Your task to perform on an android device: open app "Google Pay: Save, Pay, Manage" (install if not already installed) Image 0: 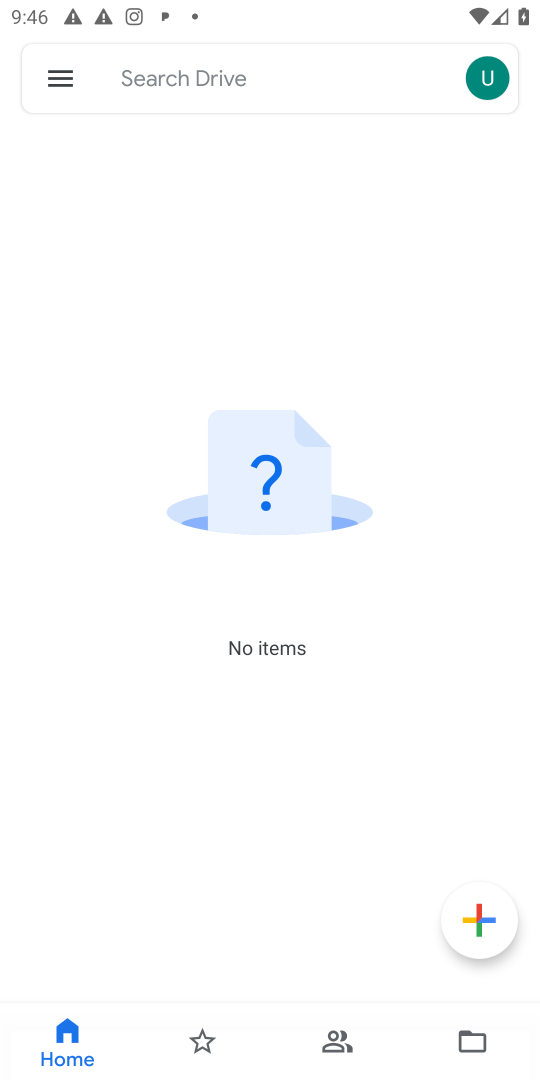
Step 0: press home button
Your task to perform on an android device: open app "Google Pay: Save, Pay, Manage" (install if not already installed) Image 1: 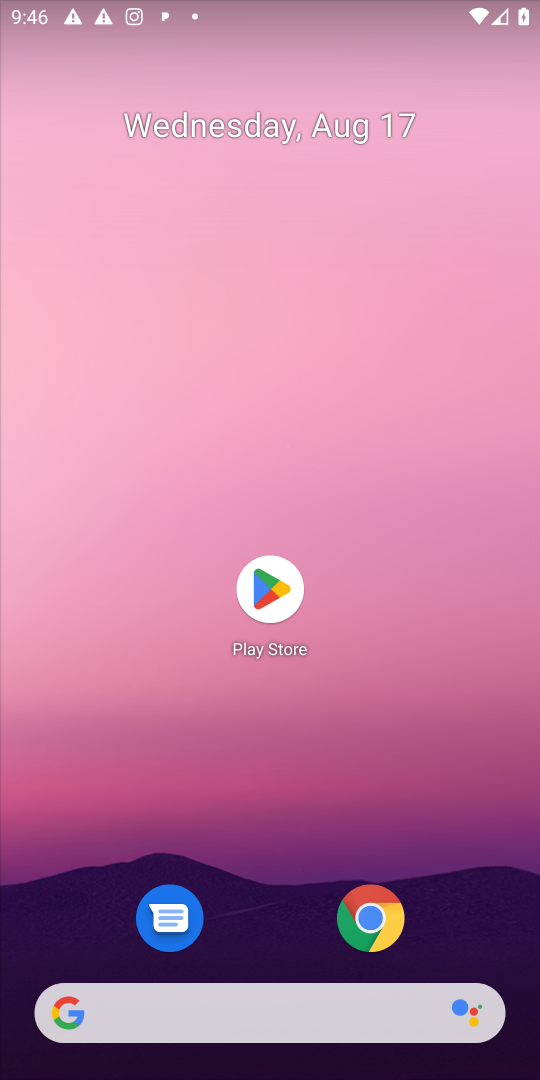
Step 1: click (267, 582)
Your task to perform on an android device: open app "Google Pay: Save, Pay, Manage" (install if not already installed) Image 2: 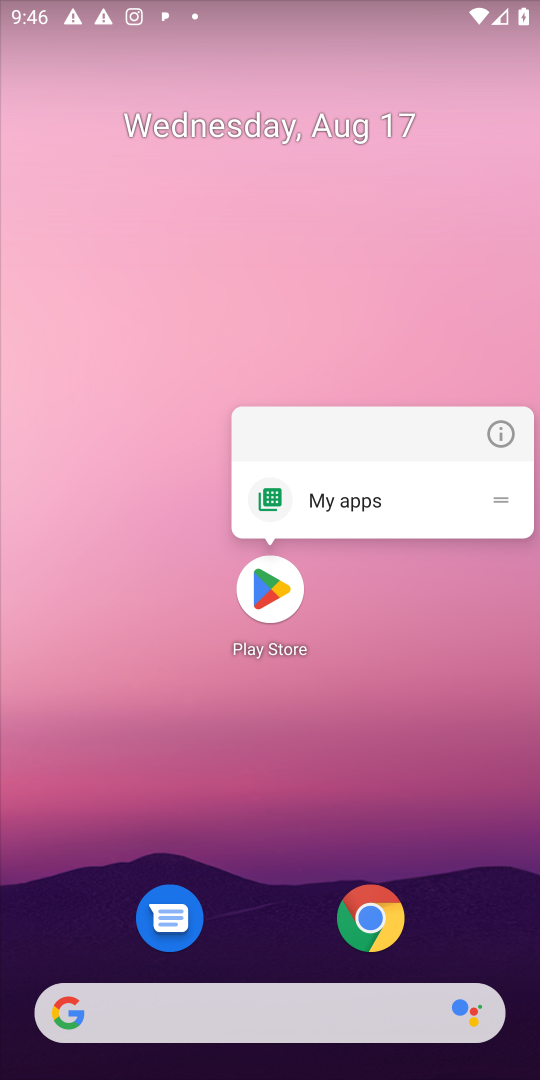
Step 2: click (265, 592)
Your task to perform on an android device: open app "Google Pay: Save, Pay, Manage" (install if not already installed) Image 3: 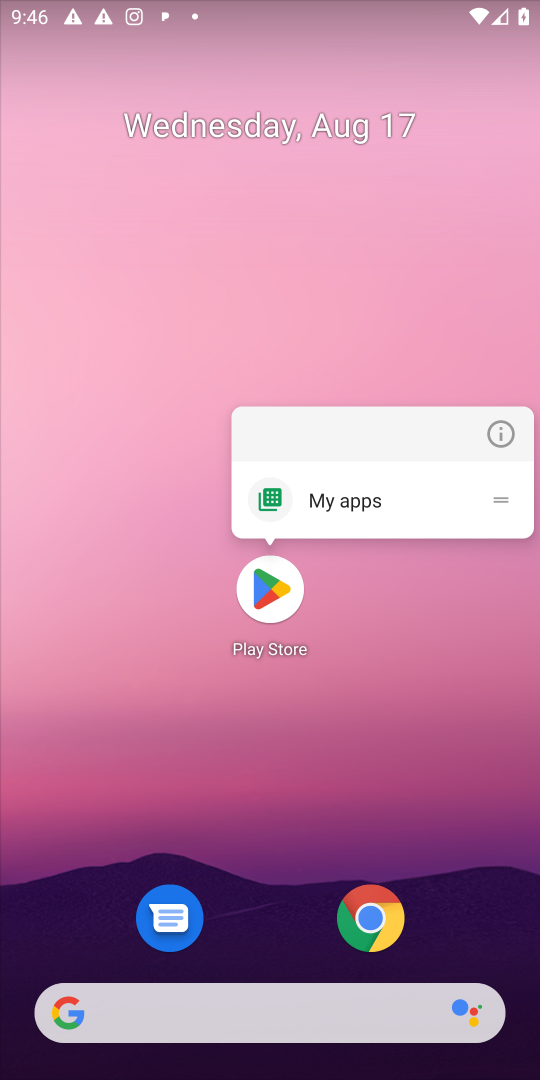
Step 3: click (265, 594)
Your task to perform on an android device: open app "Google Pay: Save, Pay, Manage" (install if not already installed) Image 4: 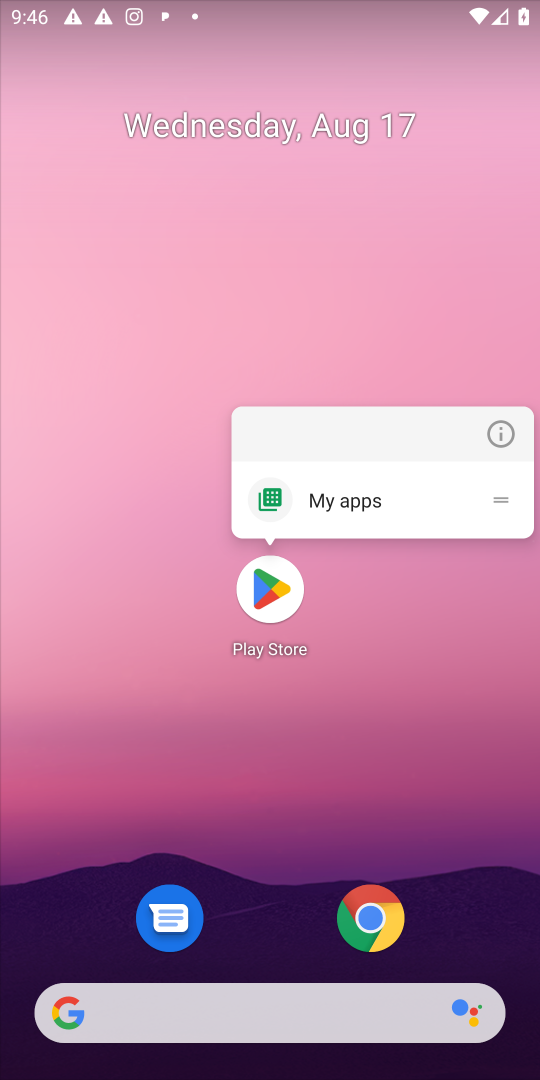
Step 4: click (265, 592)
Your task to perform on an android device: open app "Google Pay: Save, Pay, Manage" (install if not already installed) Image 5: 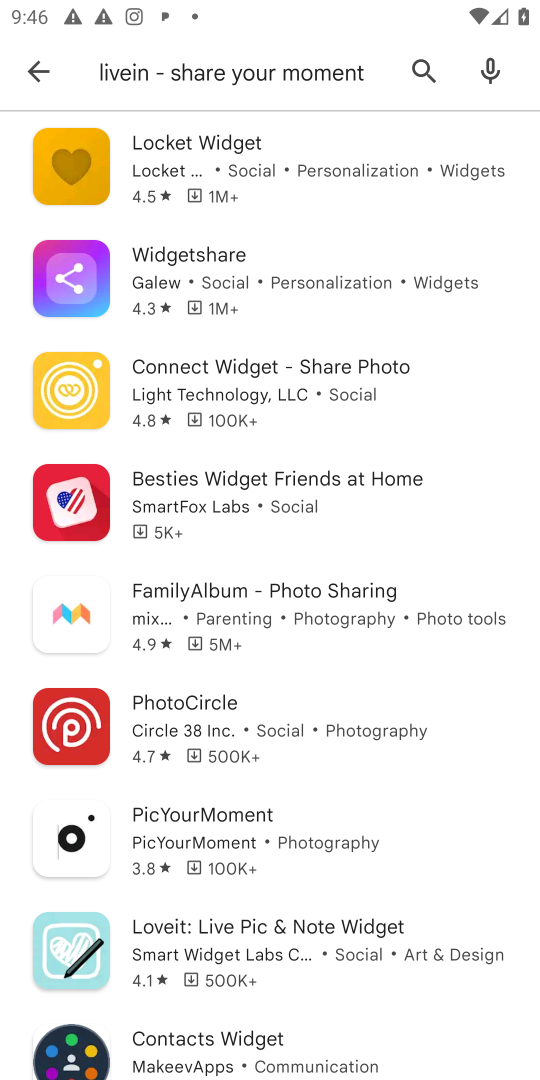
Step 5: click (420, 69)
Your task to perform on an android device: open app "Google Pay: Save, Pay, Manage" (install if not already installed) Image 6: 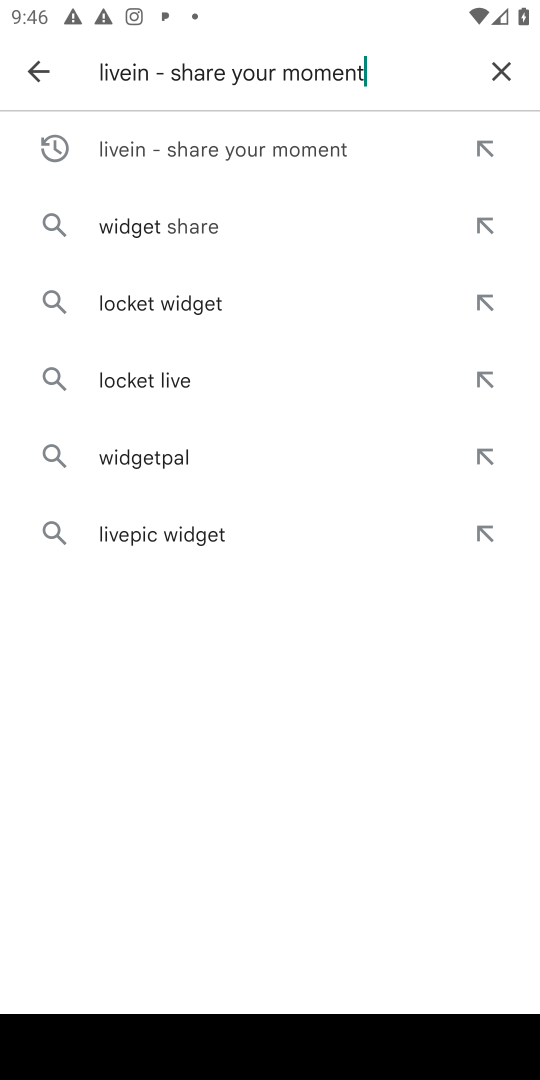
Step 6: click (497, 77)
Your task to perform on an android device: open app "Google Pay: Save, Pay, Manage" (install if not already installed) Image 7: 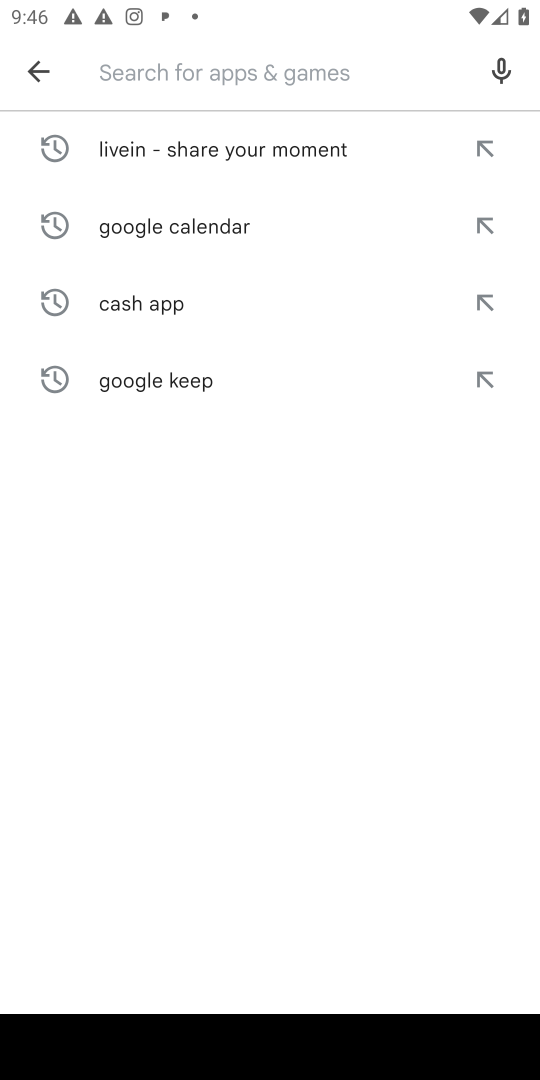
Step 7: type "Google Pay: Save, Pay, Manage"
Your task to perform on an android device: open app "Google Pay: Save, Pay, Manage" (install if not already installed) Image 8: 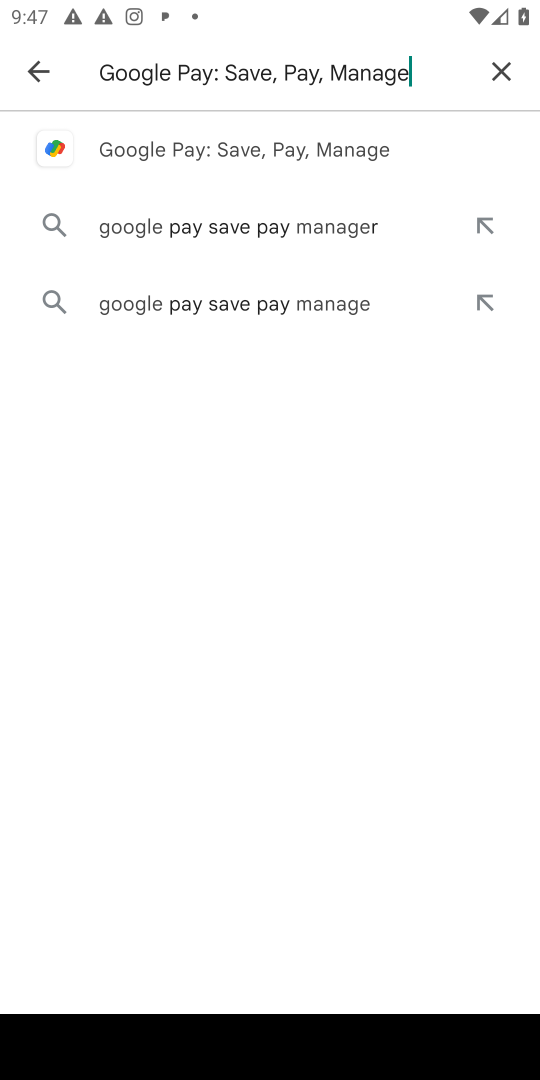
Step 8: click (164, 160)
Your task to perform on an android device: open app "Google Pay: Save, Pay, Manage" (install if not already installed) Image 9: 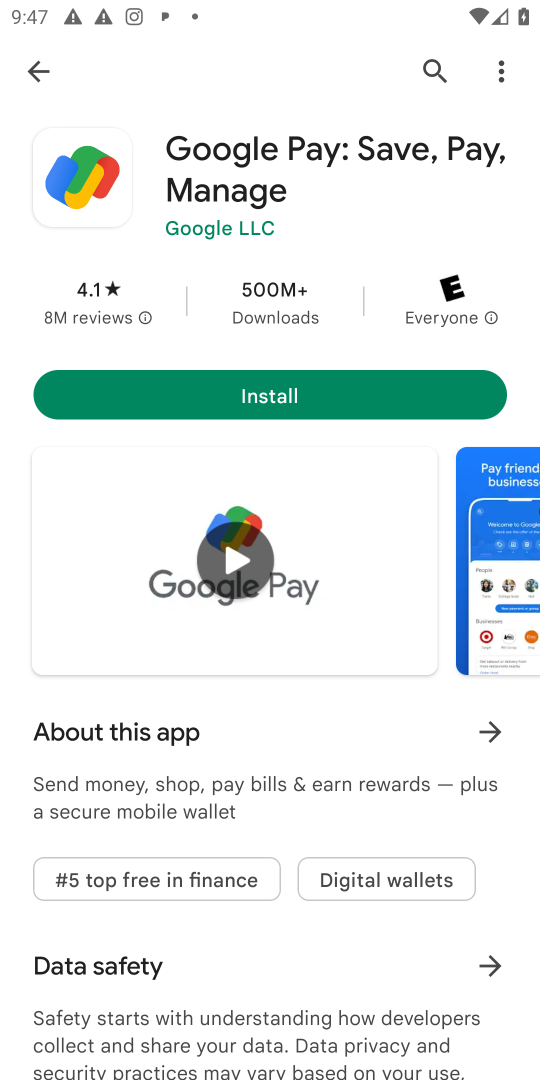
Step 9: click (242, 395)
Your task to perform on an android device: open app "Google Pay: Save, Pay, Manage" (install if not already installed) Image 10: 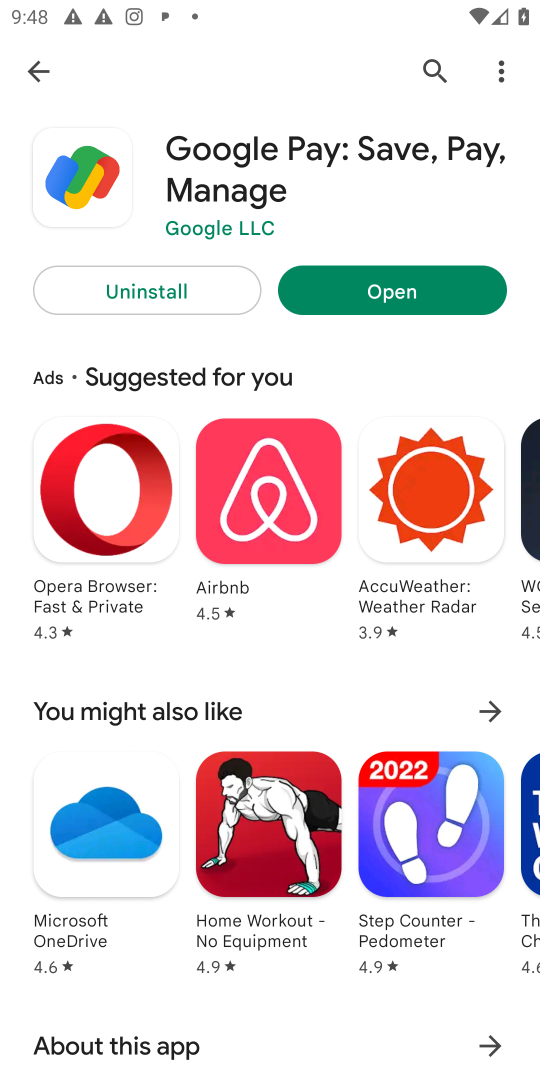
Step 10: task complete